Your task to perform on an android device: turn off data saver in the chrome app Image 0: 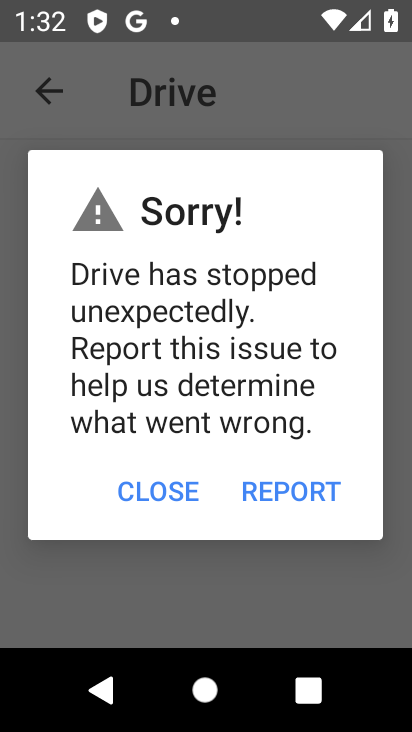
Step 0: press home button
Your task to perform on an android device: turn off data saver in the chrome app Image 1: 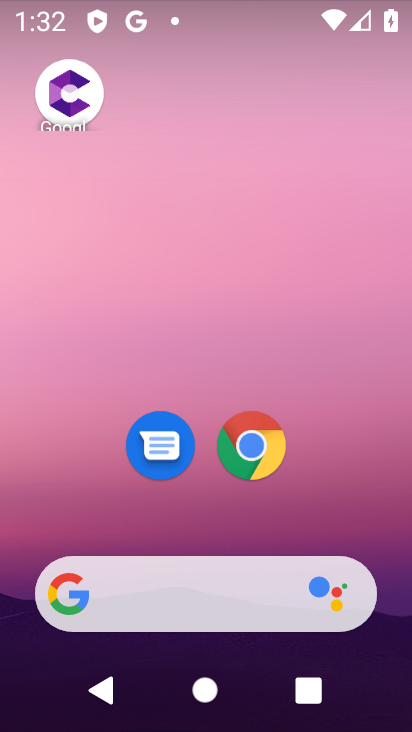
Step 1: click (249, 444)
Your task to perform on an android device: turn off data saver in the chrome app Image 2: 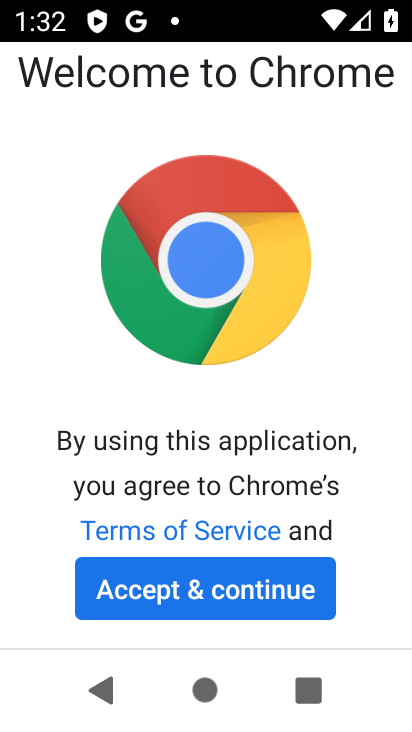
Step 2: click (206, 588)
Your task to perform on an android device: turn off data saver in the chrome app Image 3: 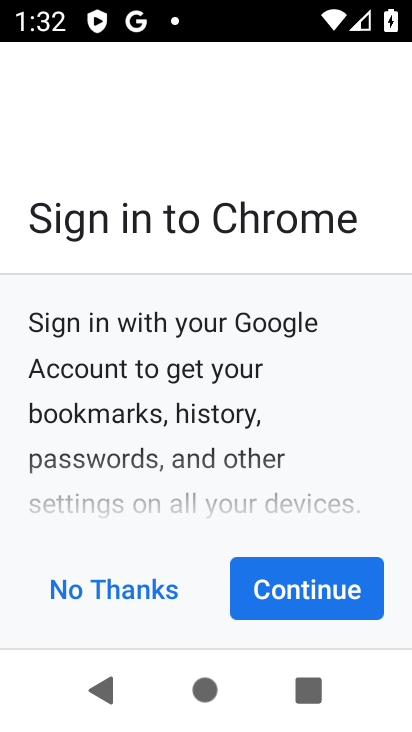
Step 3: click (289, 575)
Your task to perform on an android device: turn off data saver in the chrome app Image 4: 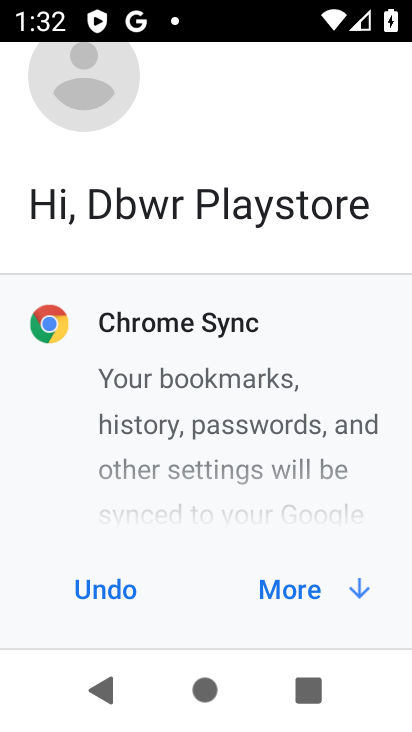
Step 4: click (362, 592)
Your task to perform on an android device: turn off data saver in the chrome app Image 5: 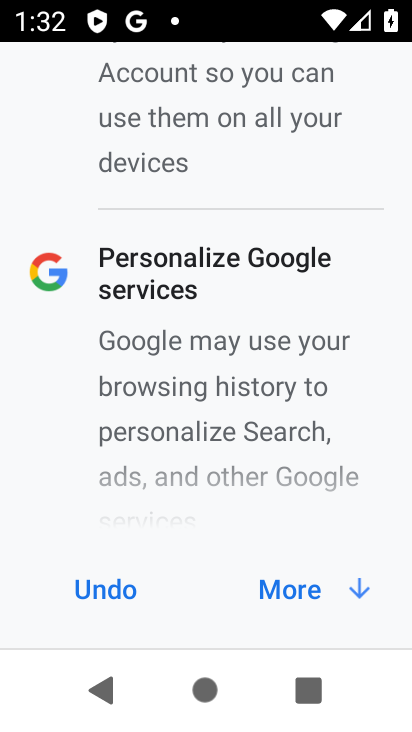
Step 5: click (304, 603)
Your task to perform on an android device: turn off data saver in the chrome app Image 6: 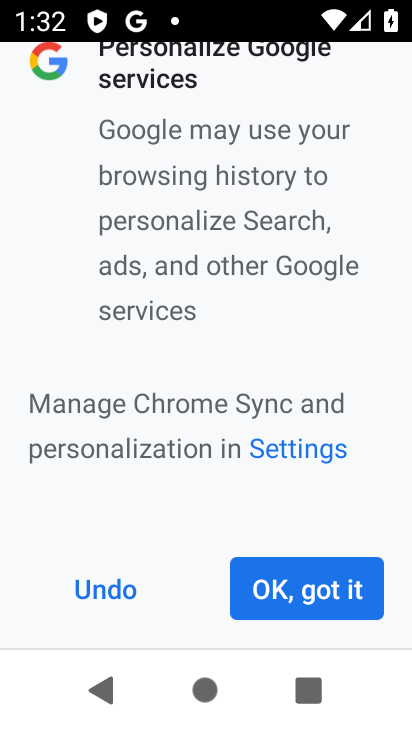
Step 6: click (312, 594)
Your task to perform on an android device: turn off data saver in the chrome app Image 7: 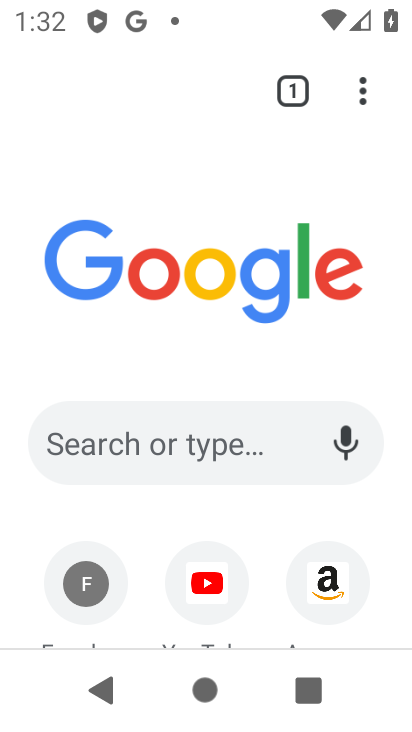
Step 7: click (366, 88)
Your task to perform on an android device: turn off data saver in the chrome app Image 8: 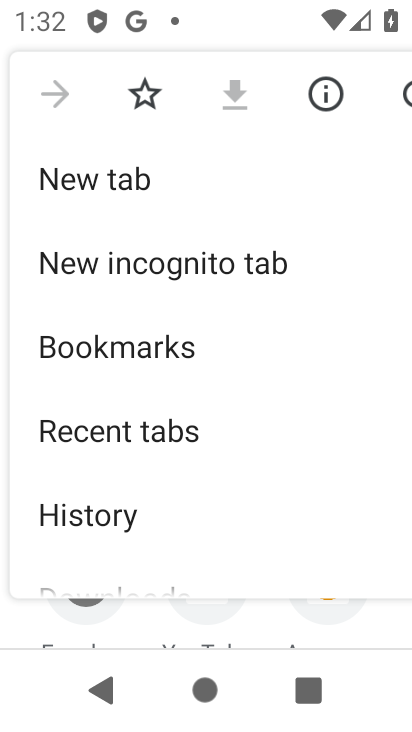
Step 8: drag from (216, 416) to (173, 212)
Your task to perform on an android device: turn off data saver in the chrome app Image 9: 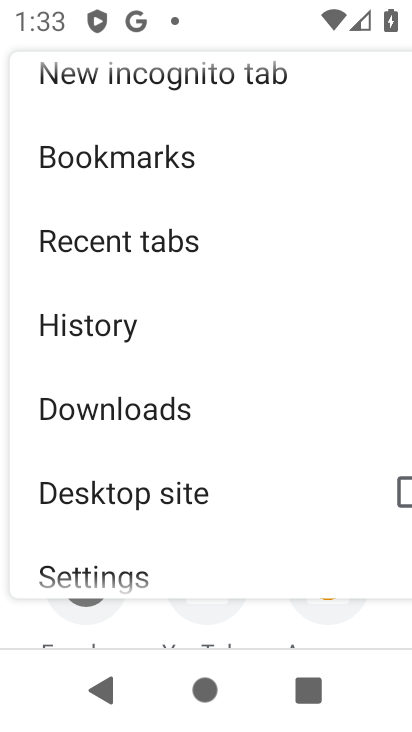
Step 9: drag from (227, 522) to (194, 188)
Your task to perform on an android device: turn off data saver in the chrome app Image 10: 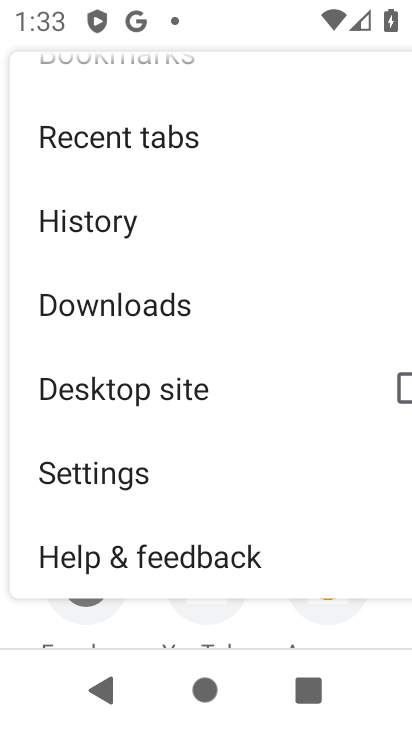
Step 10: click (121, 469)
Your task to perform on an android device: turn off data saver in the chrome app Image 11: 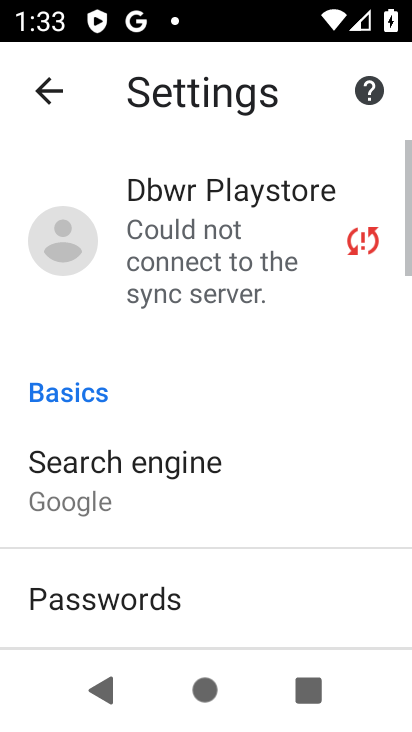
Step 11: drag from (249, 494) to (193, 180)
Your task to perform on an android device: turn off data saver in the chrome app Image 12: 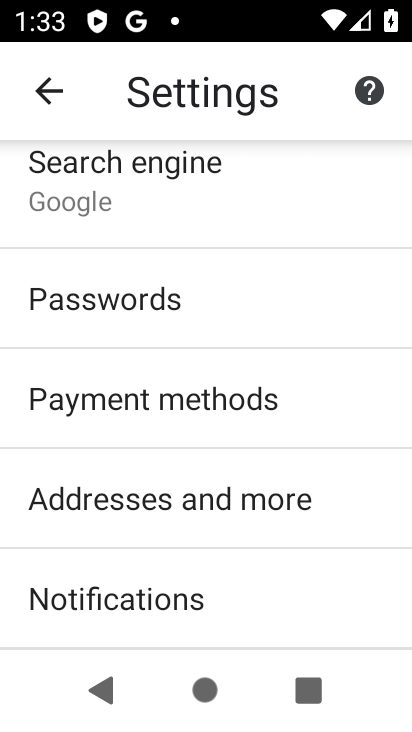
Step 12: drag from (239, 513) to (187, 232)
Your task to perform on an android device: turn off data saver in the chrome app Image 13: 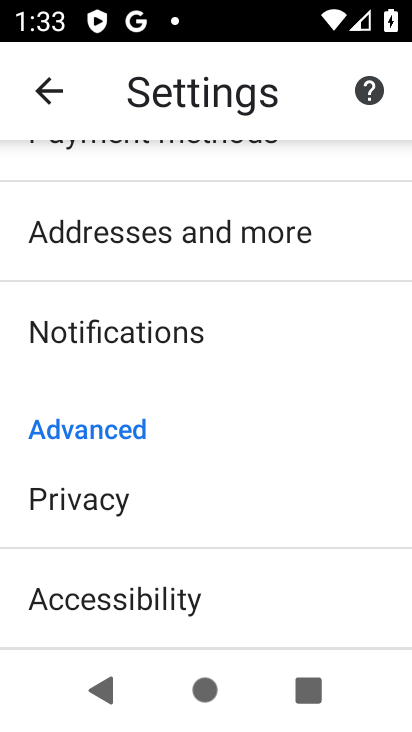
Step 13: drag from (114, 492) to (92, 196)
Your task to perform on an android device: turn off data saver in the chrome app Image 14: 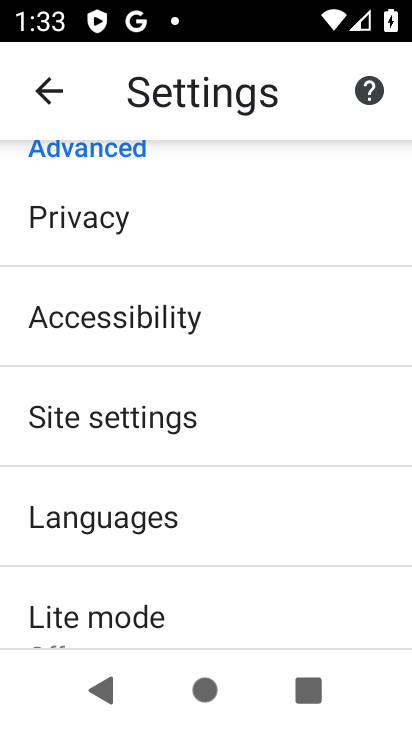
Step 14: drag from (257, 574) to (245, 299)
Your task to perform on an android device: turn off data saver in the chrome app Image 15: 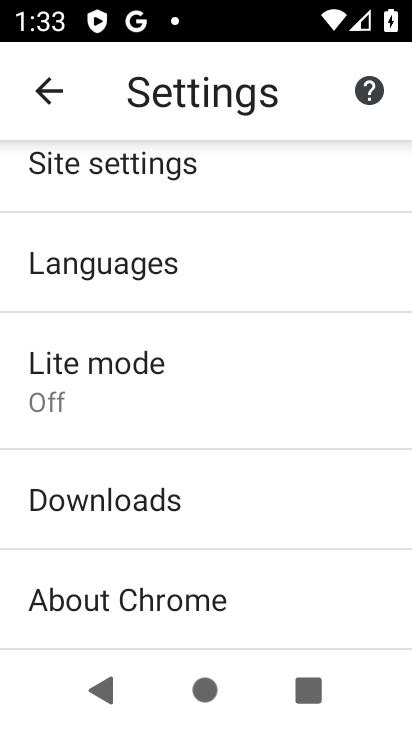
Step 15: click (109, 370)
Your task to perform on an android device: turn off data saver in the chrome app Image 16: 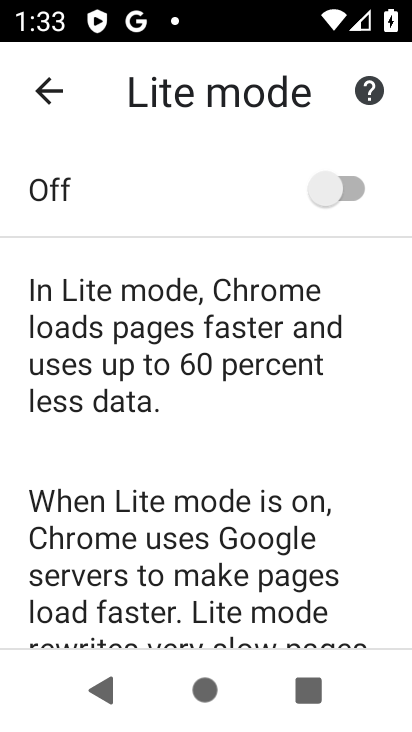
Step 16: task complete